Your task to perform on an android device: Go to network settings Image 0: 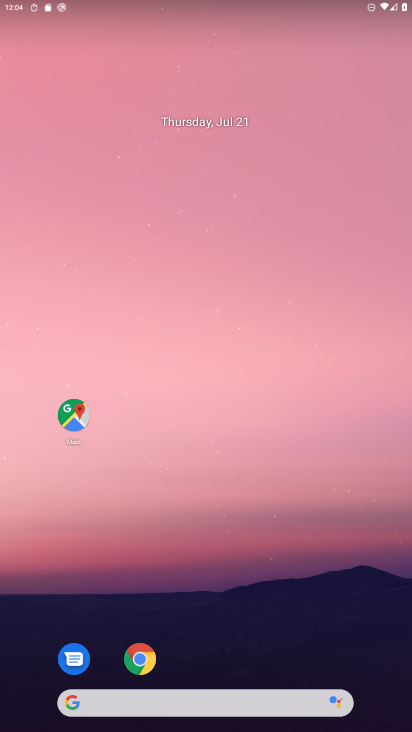
Step 0: drag from (328, 575) to (334, 66)
Your task to perform on an android device: Go to network settings Image 1: 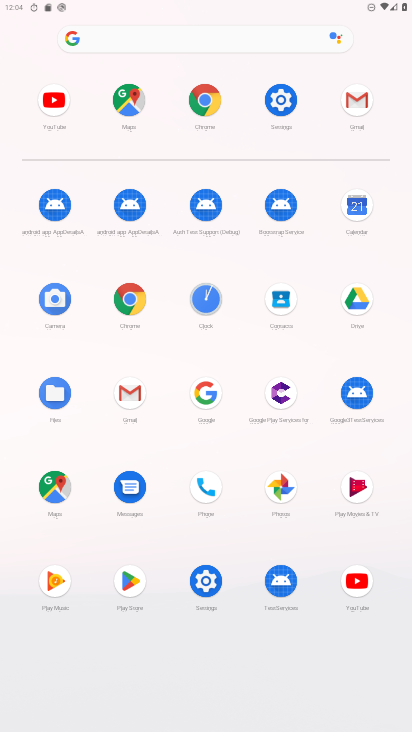
Step 1: click (290, 100)
Your task to perform on an android device: Go to network settings Image 2: 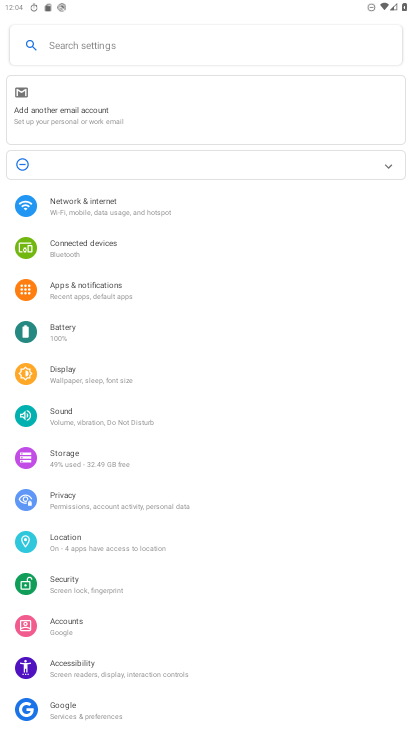
Step 2: click (99, 209)
Your task to perform on an android device: Go to network settings Image 3: 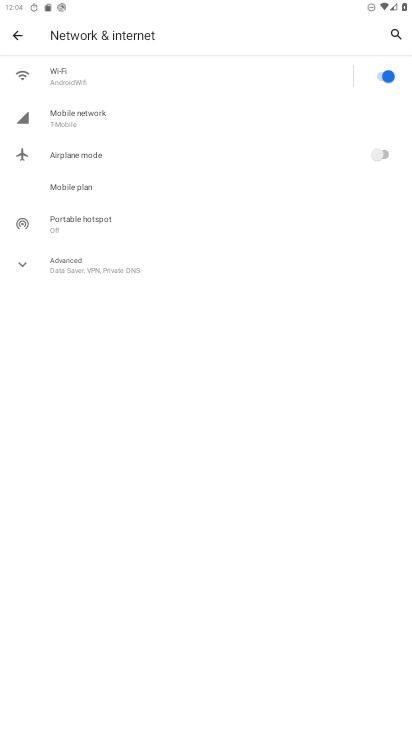
Step 3: task complete